Your task to perform on an android device: turn off smart reply in the gmail app Image 0: 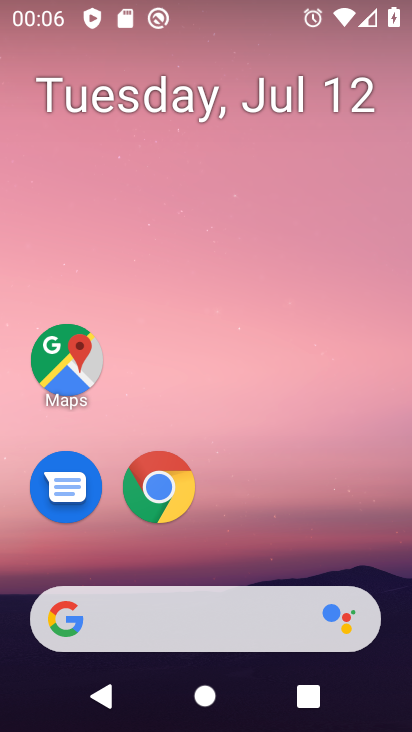
Step 0: drag from (350, 541) to (349, 142)
Your task to perform on an android device: turn off smart reply in the gmail app Image 1: 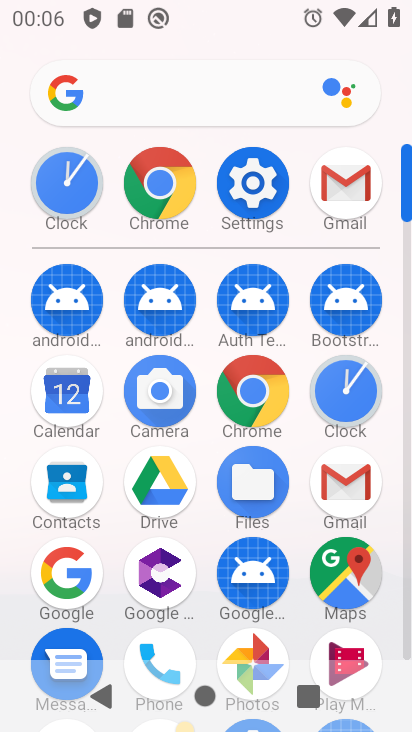
Step 1: click (345, 489)
Your task to perform on an android device: turn off smart reply in the gmail app Image 2: 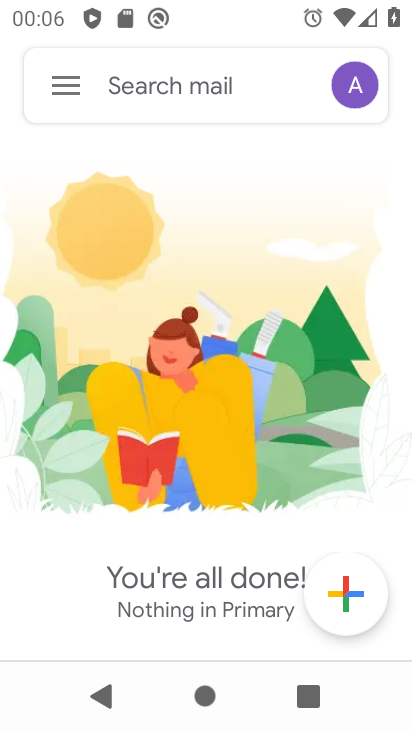
Step 2: click (61, 86)
Your task to perform on an android device: turn off smart reply in the gmail app Image 3: 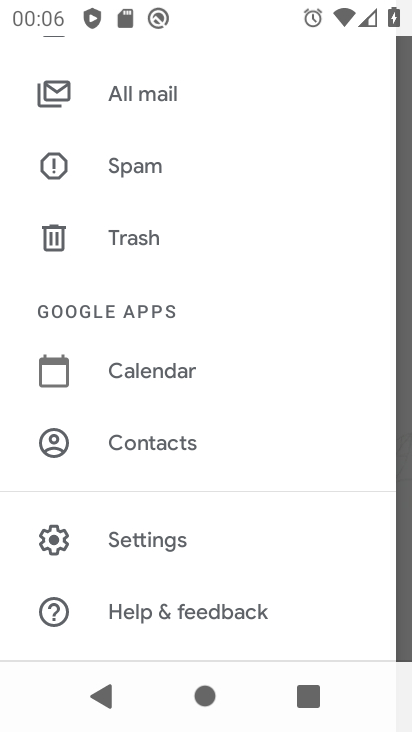
Step 3: drag from (272, 192) to (283, 300)
Your task to perform on an android device: turn off smart reply in the gmail app Image 4: 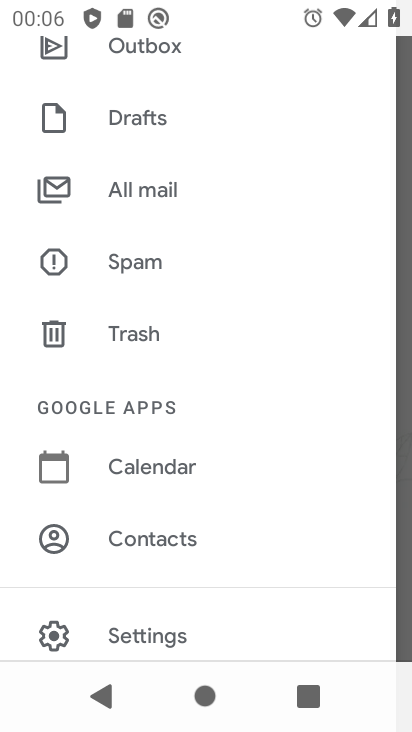
Step 4: drag from (293, 217) to (307, 343)
Your task to perform on an android device: turn off smart reply in the gmail app Image 5: 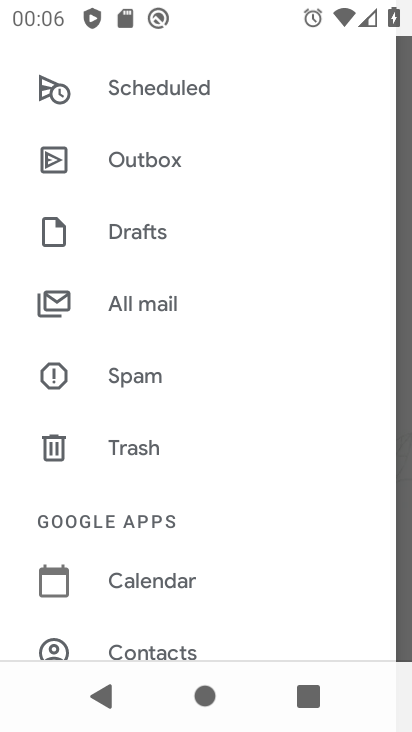
Step 5: drag from (285, 565) to (300, 393)
Your task to perform on an android device: turn off smart reply in the gmail app Image 6: 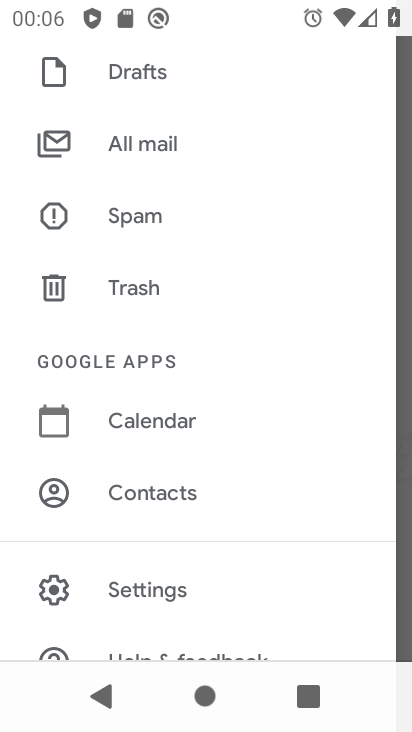
Step 6: drag from (271, 576) to (283, 361)
Your task to perform on an android device: turn off smart reply in the gmail app Image 7: 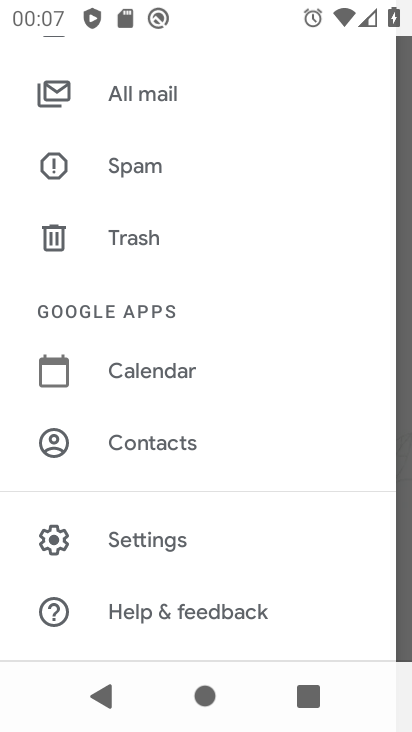
Step 7: click (189, 544)
Your task to perform on an android device: turn off smart reply in the gmail app Image 8: 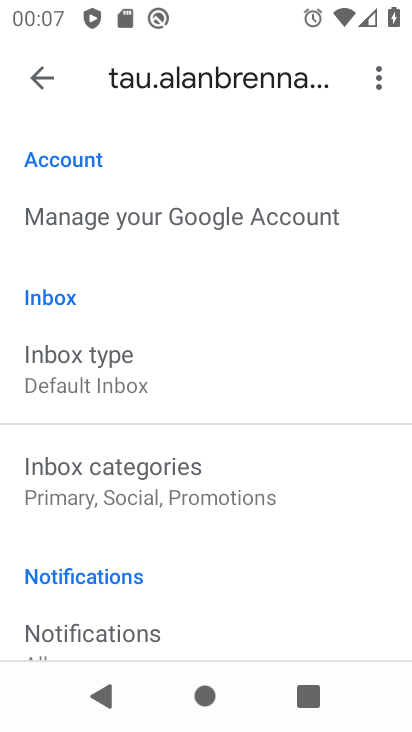
Step 8: drag from (275, 522) to (274, 452)
Your task to perform on an android device: turn off smart reply in the gmail app Image 9: 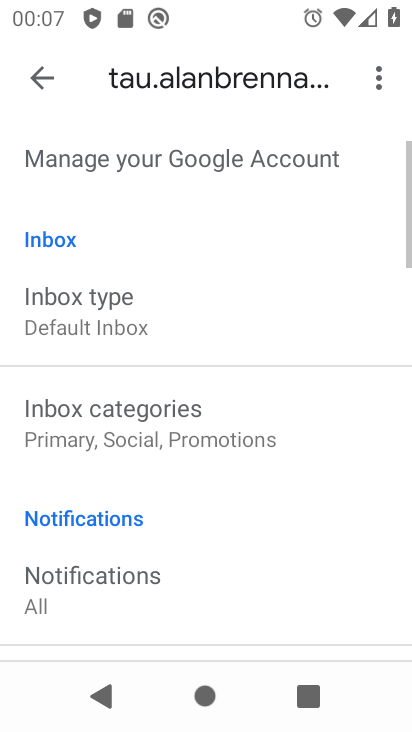
Step 9: drag from (288, 554) to (292, 459)
Your task to perform on an android device: turn off smart reply in the gmail app Image 10: 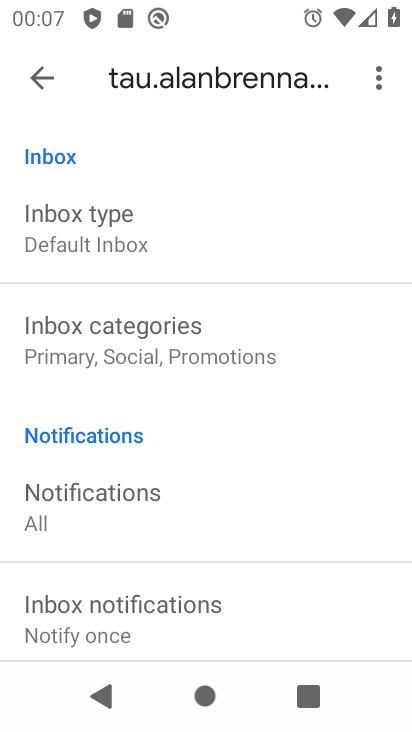
Step 10: drag from (292, 576) to (293, 501)
Your task to perform on an android device: turn off smart reply in the gmail app Image 11: 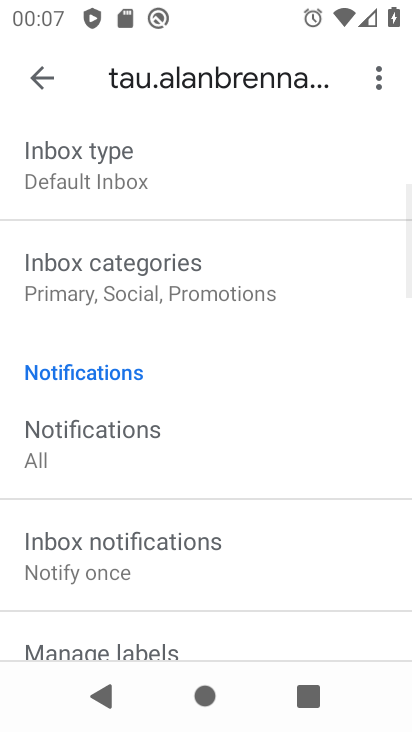
Step 11: drag from (293, 575) to (294, 481)
Your task to perform on an android device: turn off smart reply in the gmail app Image 12: 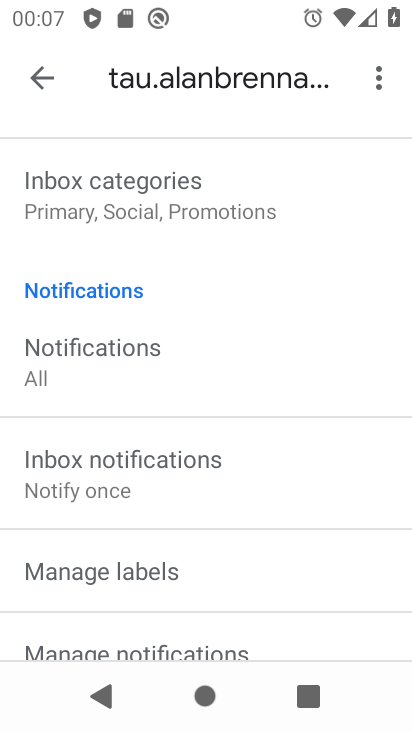
Step 12: drag from (284, 559) to (286, 458)
Your task to perform on an android device: turn off smart reply in the gmail app Image 13: 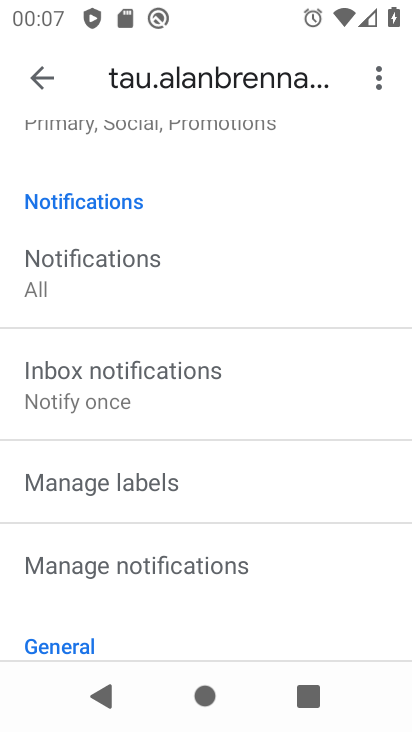
Step 13: drag from (286, 549) to (285, 469)
Your task to perform on an android device: turn off smart reply in the gmail app Image 14: 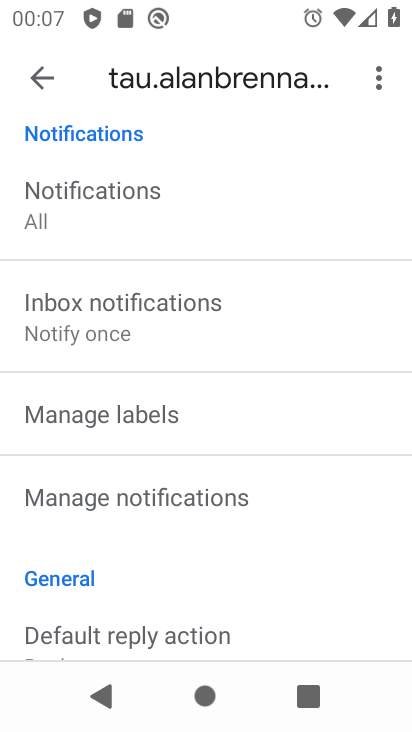
Step 14: drag from (307, 326) to (312, 392)
Your task to perform on an android device: turn off smart reply in the gmail app Image 15: 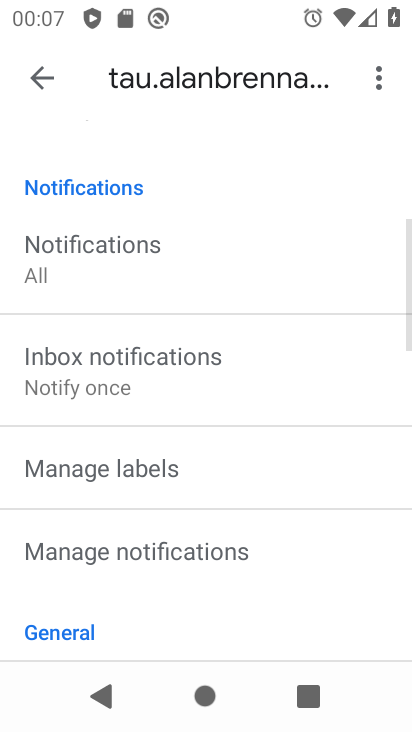
Step 15: drag from (298, 506) to (299, 424)
Your task to perform on an android device: turn off smart reply in the gmail app Image 16: 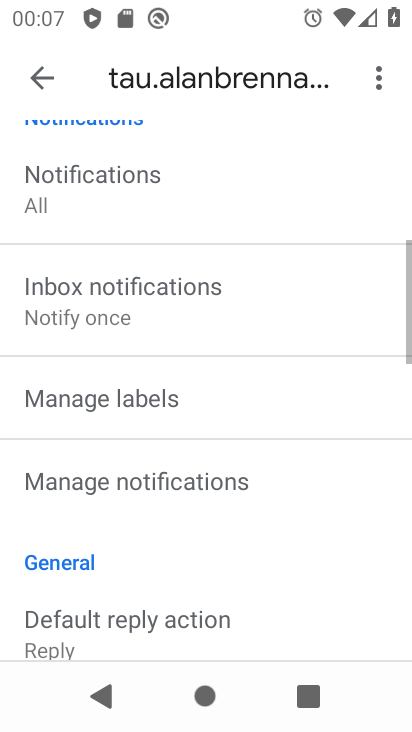
Step 16: drag from (321, 513) to (323, 430)
Your task to perform on an android device: turn off smart reply in the gmail app Image 17: 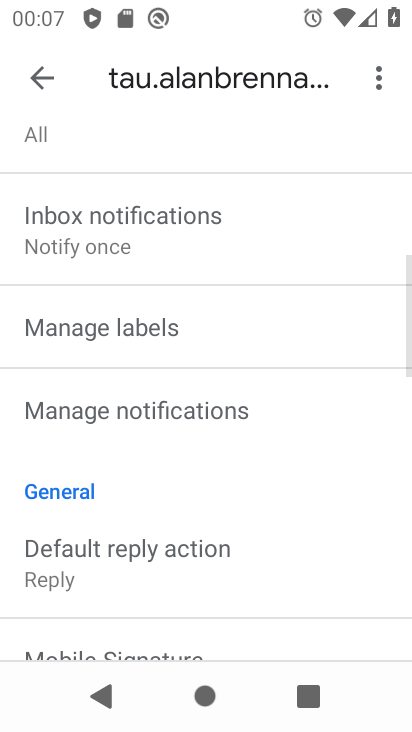
Step 17: drag from (323, 528) to (330, 430)
Your task to perform on an android device: turn off smart reply in the gmail app Image 18: 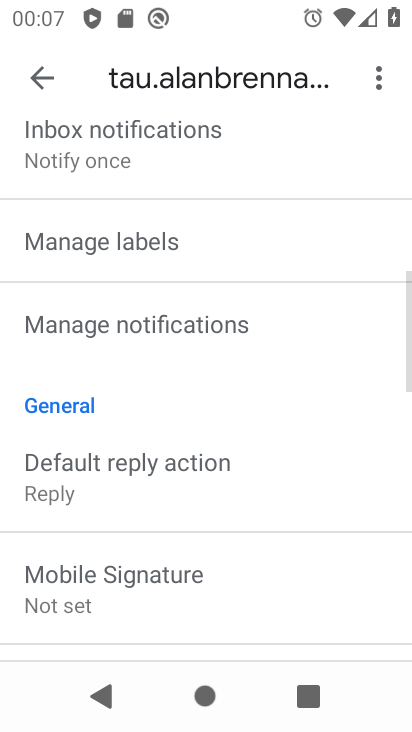
Step 18: drag from (329, 530) to (329, 421)
Your task to perform on an android device: turn off smart reply in the gmail app Image 19: 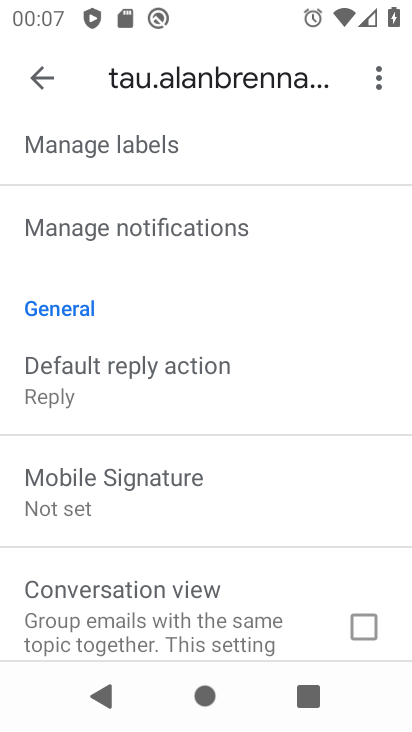
Step 19: drag from (322, 486) to (322, 387)
Your task to perform on an android device: turn off smart reply in the gmail app Image 20: 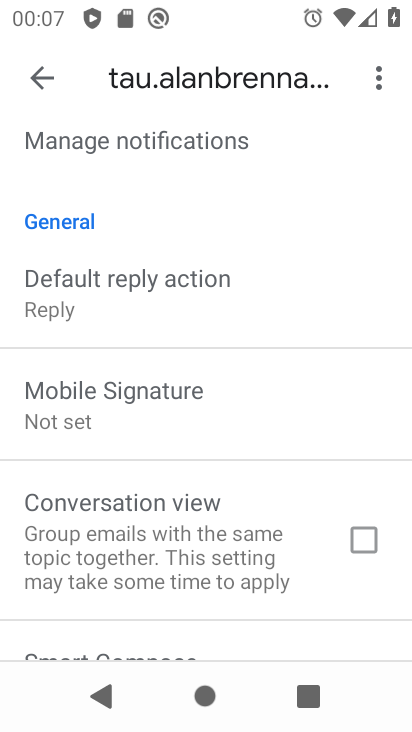
Step 20: drag from (312, 462) to (308, 368)
Your task to perform on an android device: turn off smart reply in the gmail app Image 21: 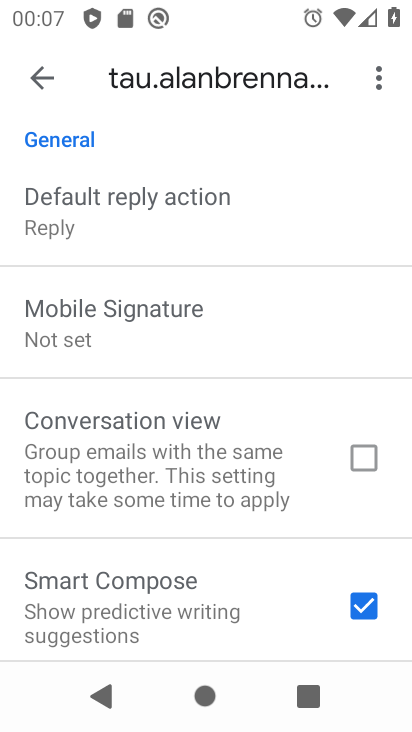
Step 21: drag from (299, 513) to (300, 367)
Your task to perform on an android device: turn off smart reply in the gmail app Image 22: 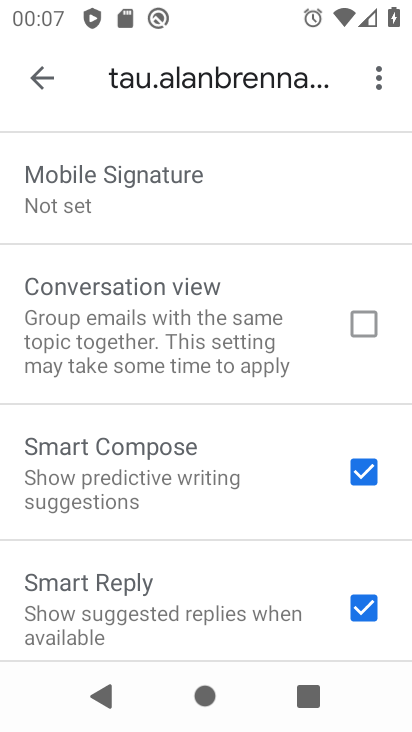
Step 22: click (363, 609)
Your task to perform on an android device: turn off smart reply in the gmail app Image 23: 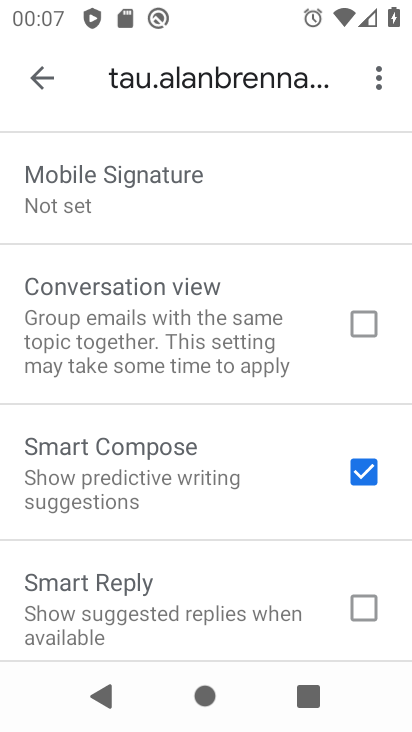
Step 23: task complete